Your task to perform on an android device: Open privacy settings Image 0: 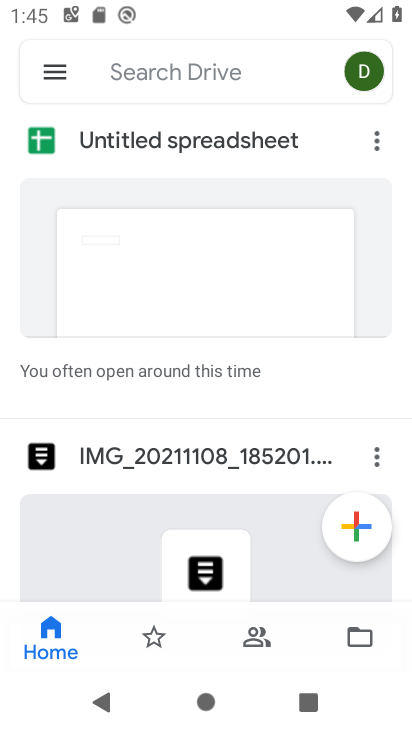
Step 0: press home button
Your task to perform on an android device: Open privacy settings Image 1: 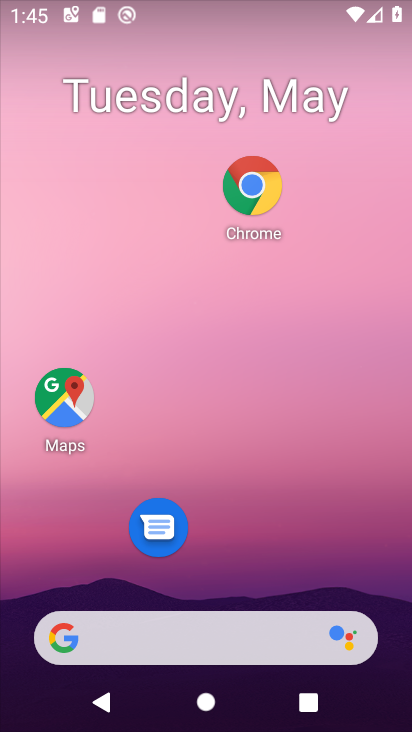
Step 1: drag from (289, 479) to (155, 45)
Your task to perform on an android device: Open privacy settings Image 2: 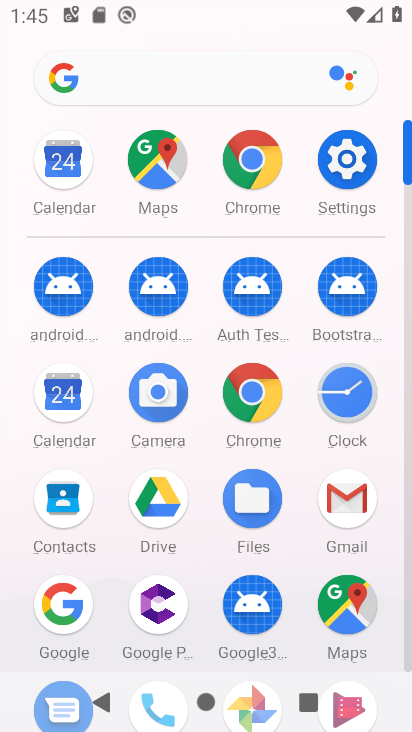
Step 2: click (349, 159)
Your task to perform on an android device: Open privacy settings Image 3: 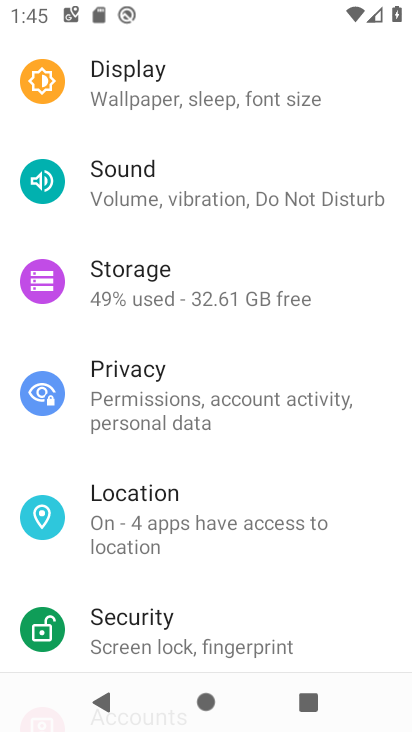
Step 3: click (124, 364)
Your task to perform on an android device: Open privacy settings Image 4: 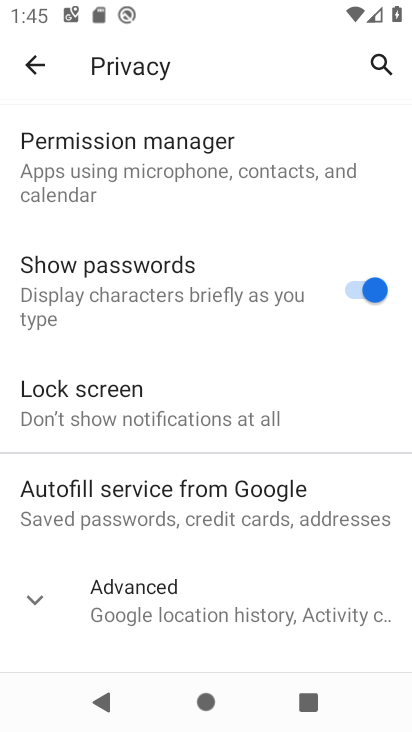
Step 4: task complete